Your task to perform on an android device: turn pop-ups on in chrome Image 0: 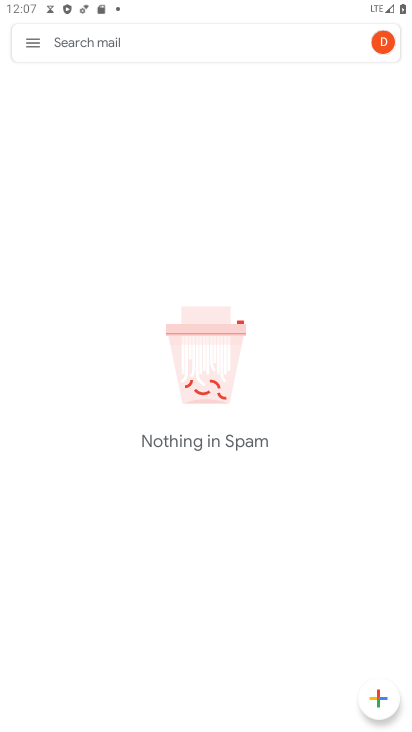
Step 0: press home button
Your task to perform on an android device: turn pop-ups on in chrome Image 1: 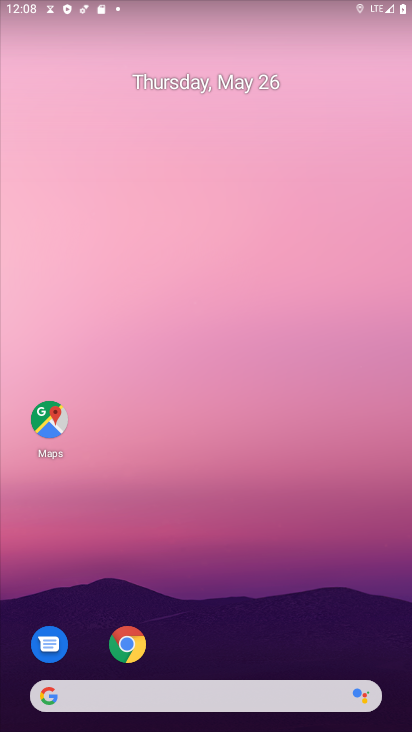
Step 1: click (127, 646)
Your task to perform on an android device: turn pop-ups on in chrome Image 2: 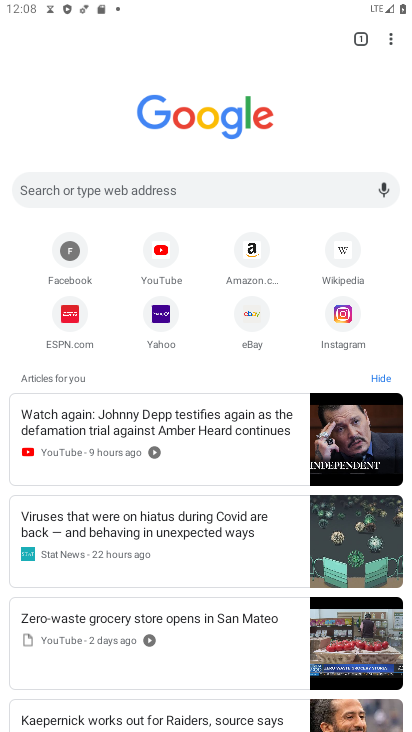
Step 2: click (390, 39)
Your task to perform on an android device: turn pop-ups on in chrome Image 3: 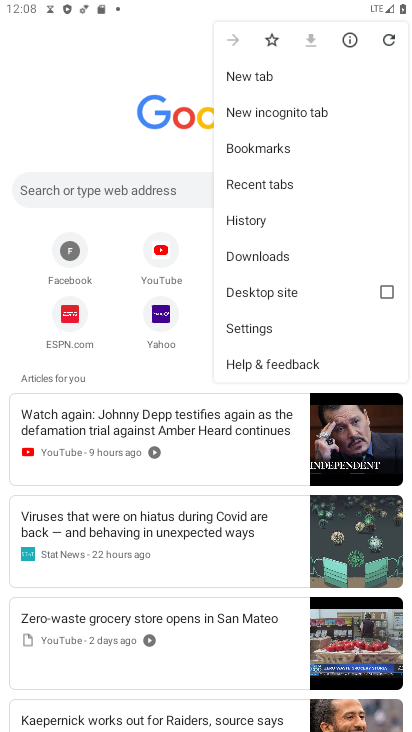
Step 3: click (256, 327)
Your task to perform on an android device: turn pop-ups on in chrome Image 4: 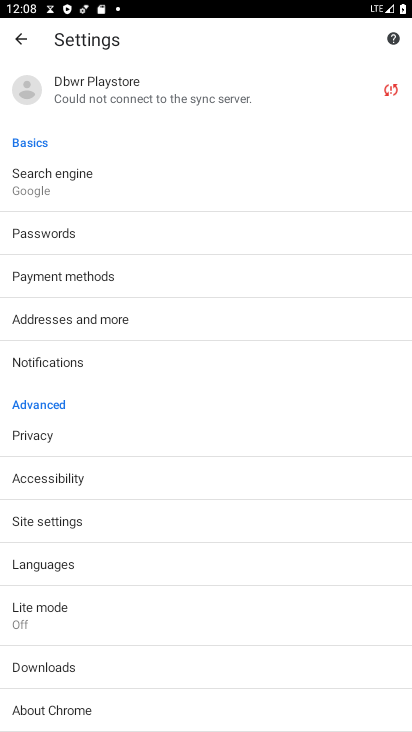
Step 4: click (71, 522)
Your task to perform on an android device: turn pop-ups on in chrome Image 5: 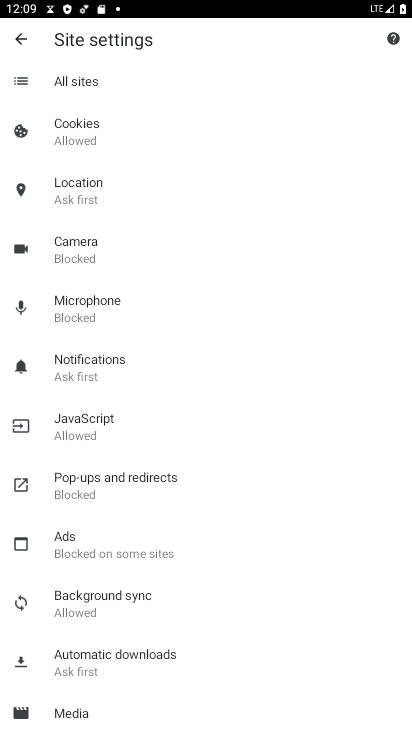
Step 5: click (147, 475)
Your task to perform on an android device: turn pop-ups on in chrome Image 6: 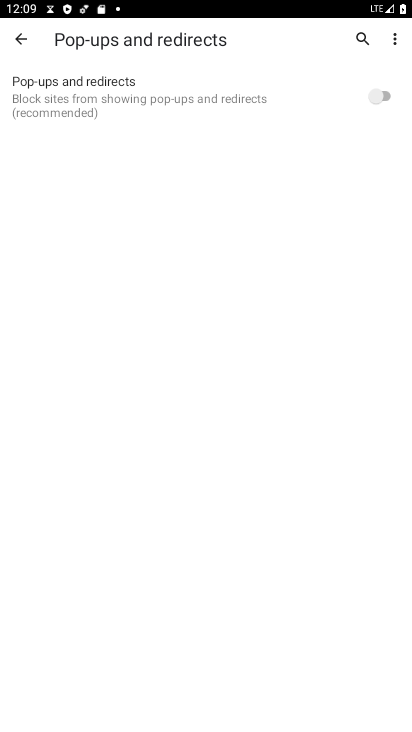
Step 6: click (385, 99)
Your task to perform on an android device: turn pop-ups on in chrome Image 7: 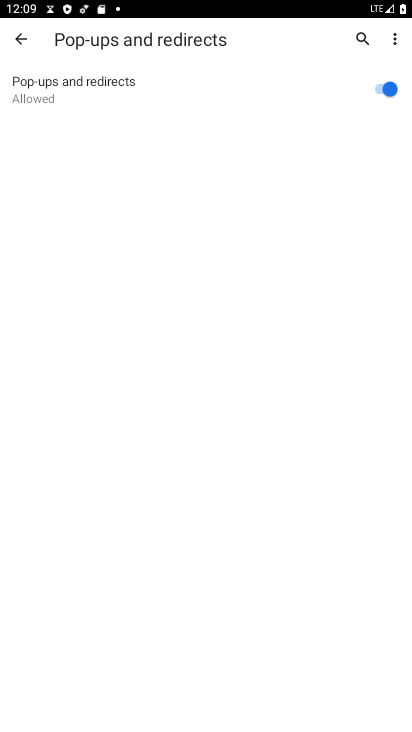
Step 7: task complete